Your task to perform on an android device: Go to ESPN.com Image 0: 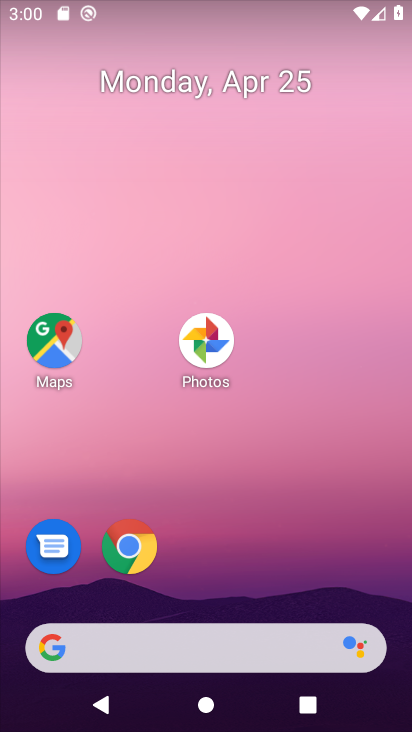
Step 0: drag from (261, 199) to (256, 109)
Your task to perform on an android device: Go to ESPN.com Image 1: 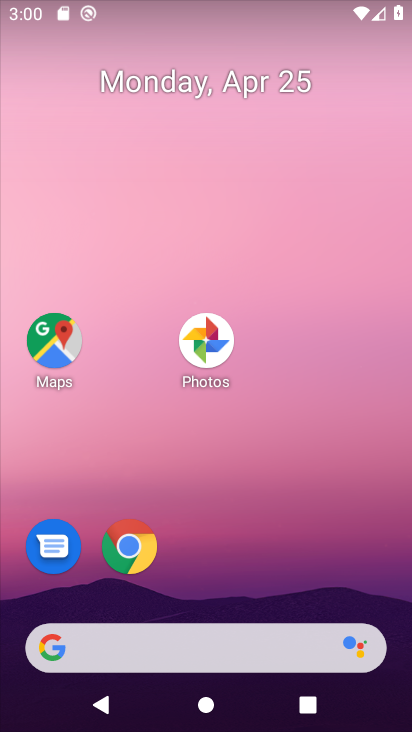
Step 1: drag from (267, 570) to (269, 135)
Your task to perform on an android device: Go to ESPN.com Image 2: 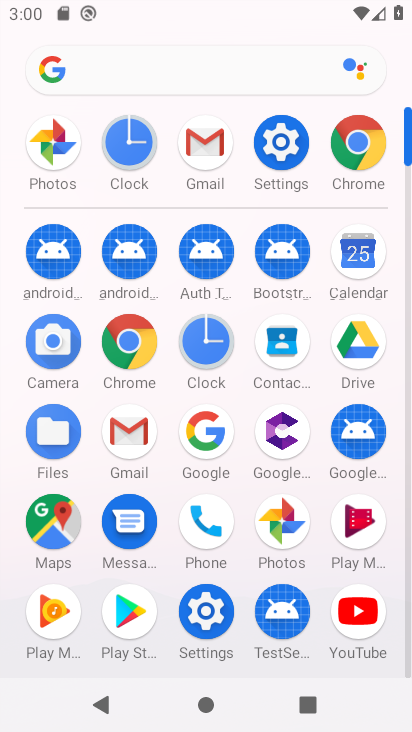
Step 2: click (126, 337)
Your task to perform on an android device: Go to ESPN.com Image 3: 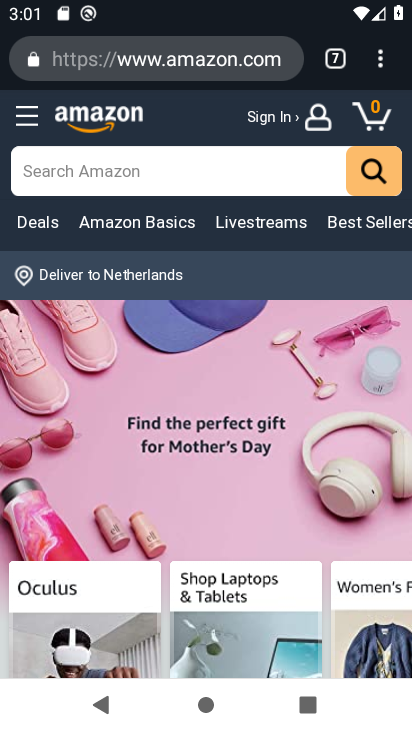
Step 3: click (368, 61)
Your task to perform on an android device: Go to ESPN.com Image 4: 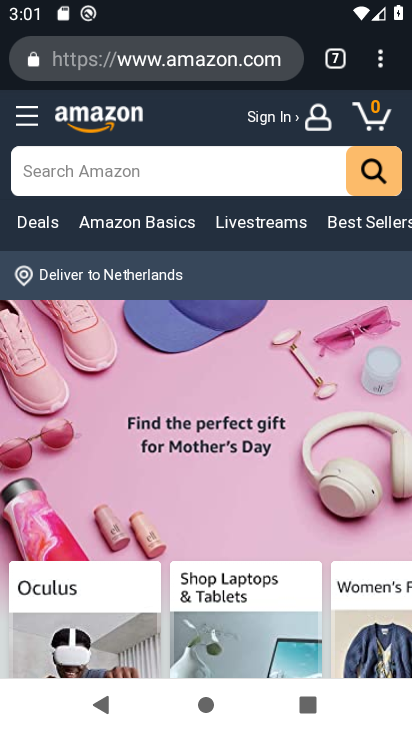
Step 4: click (362, 55)
Your task to perform on an android device: Go to ESPN.com Image 5: 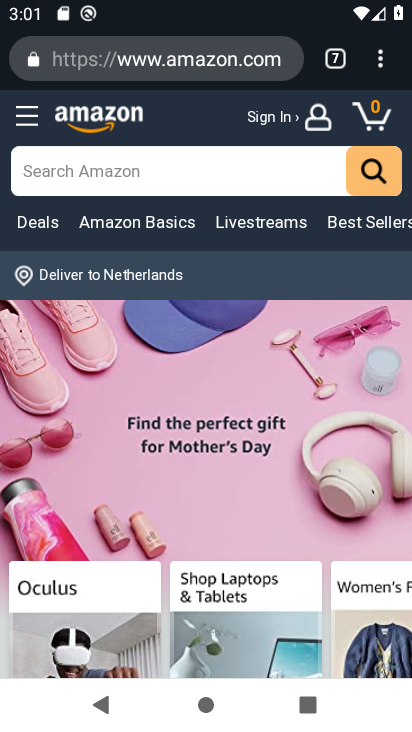
Step 5: click (357, 53)
Your task to perform on an android device: Go to ESPN.com Image 6: 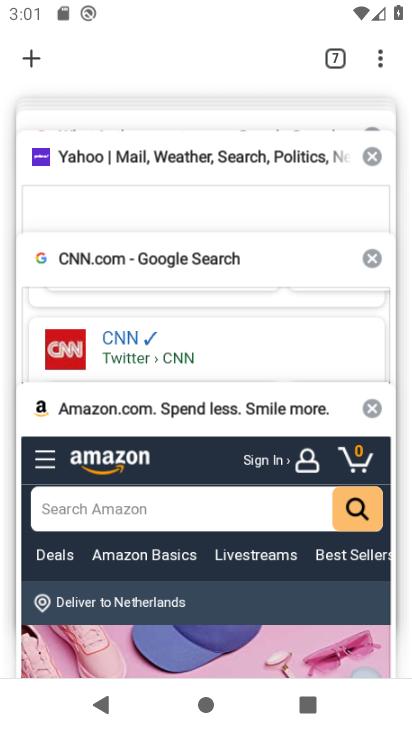
Step 6: click (357, 53)
Your task to perform on an android device: Go to ESPN.com Image 7: 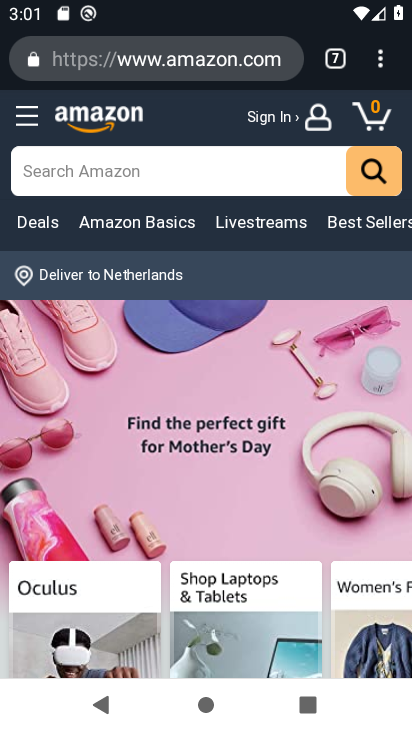
Step 7: click (369, 61)
Your task to perform on an android device: Go to ESPN.com Image 8: 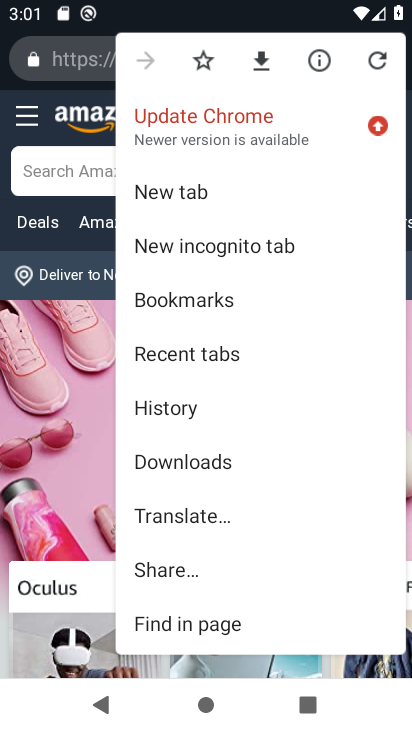
Step 8: click (181, 189)
Your task to perform on an android device: Go to ESPN.com Image 9: 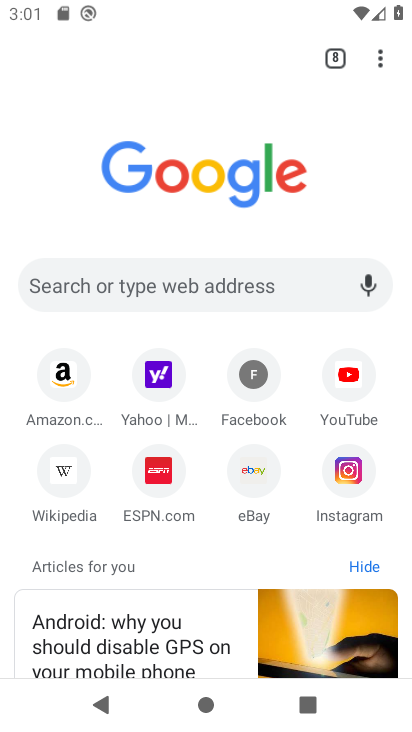
Step 9: click (158, 483)
Your task to perform on an android device: Go to ESPN.com Image 10: 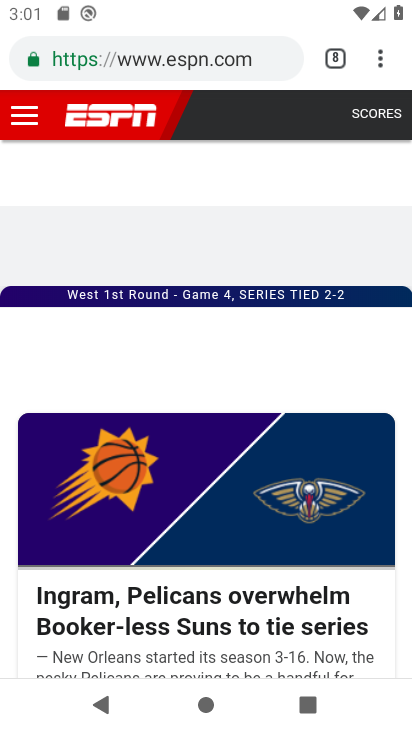
Step 10: task complete